Your task to perform on an android device: Open settings on Google Maps Image 0: 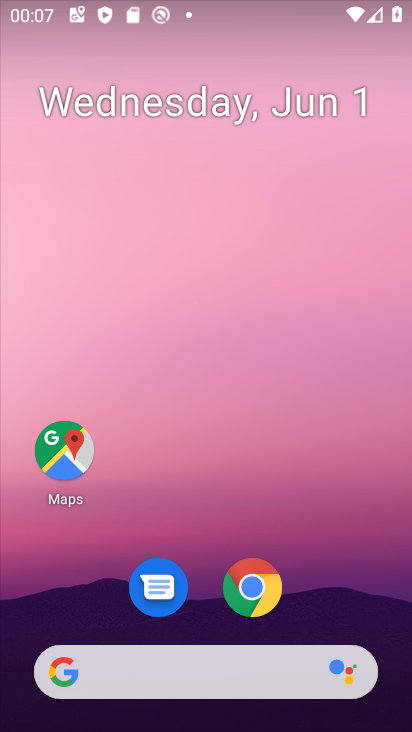
Step 0: click (60, 472)
Your task to perform on an android device: Open settings on Google Maps Image 1: 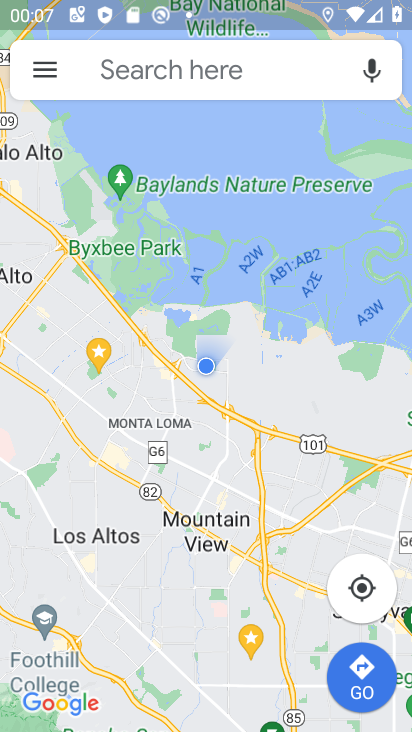
Step 1: click (49, 76)
Your task to perform on an android device: Open settings on Google Maps Image 2: 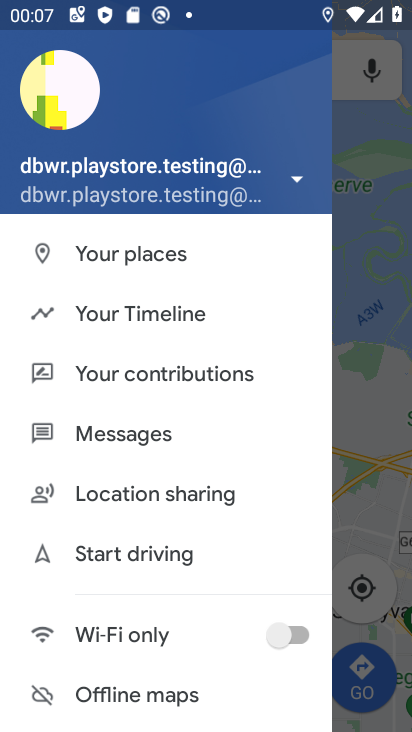
Step 2: drag from (140, 664) to (127, 68)
Your task to perform on an android device: Open settings on Google Maps Image 3: 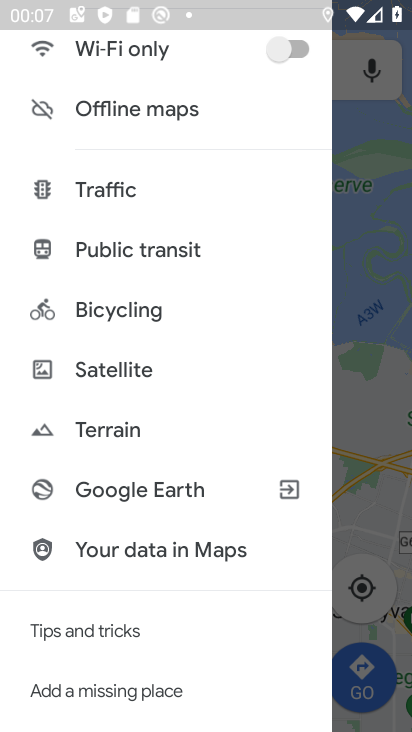
Step 3: drag from (137, 627) to (149, 119)
Your task to perform on an android device: Open settings on Google Maps Image 4: 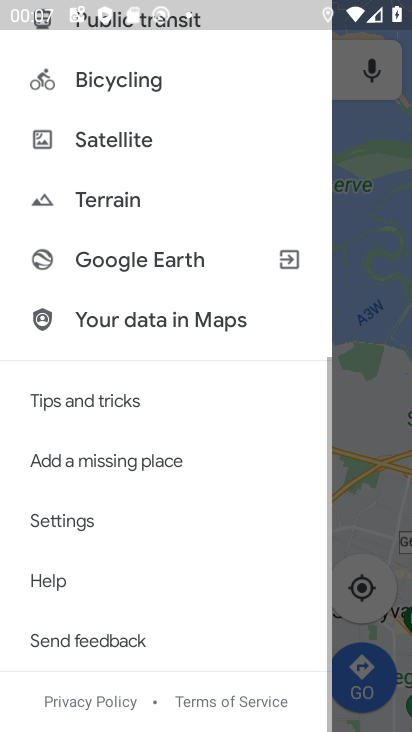
Step 4: click (78, 526)
Your task to perform on an android device: Open settings on Google Maps Image 5: 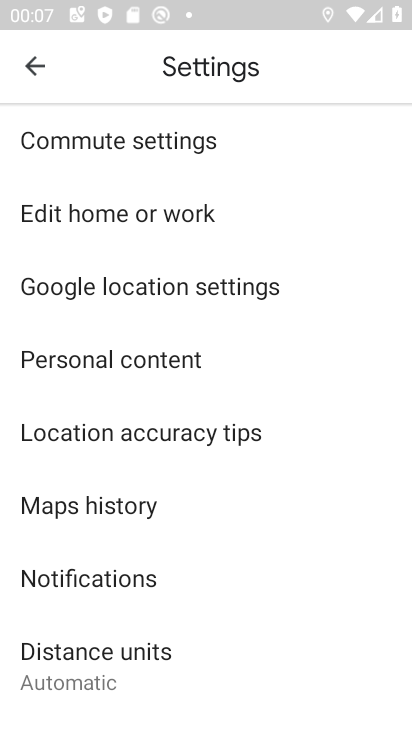
Step 5: task complete